Your task to perform on an android device: set the stopwatch Image 0: 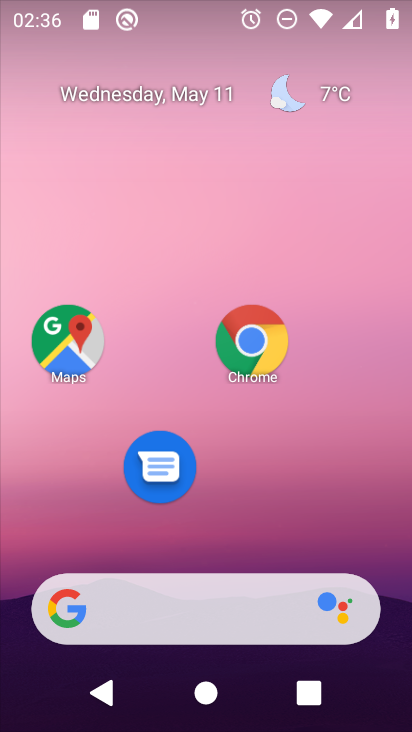
Step 0: drag from (186, 613) to (339, 94)
Your task to perform on an android device: set the stopwatch Image 1: 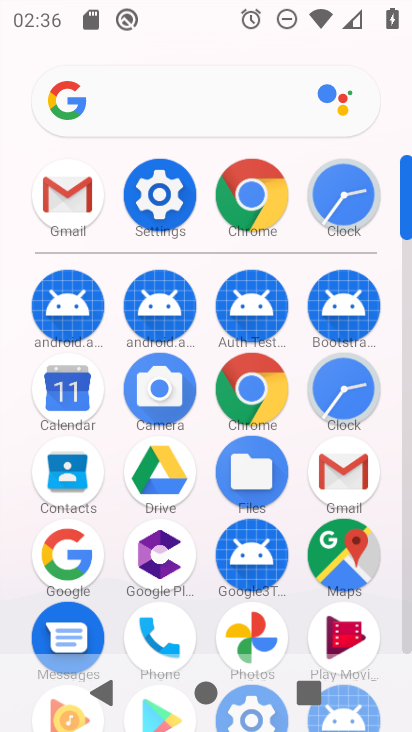
Step 1: click (347, 206)
Your task to perform on an android device: set the stopwatch Image 2: 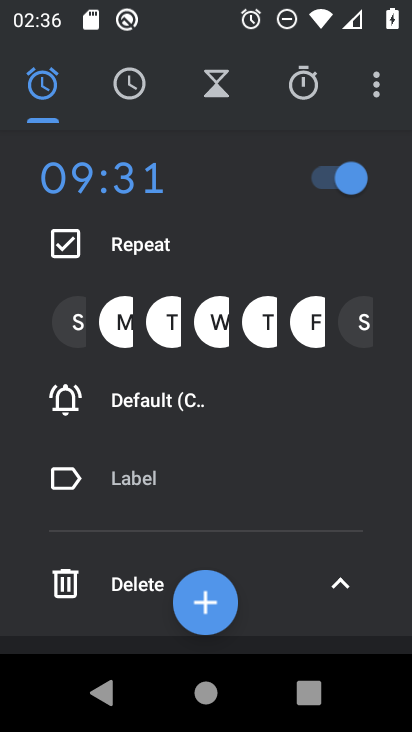
Step 2: click (300, 94)
Your task to perform on an android device: set the stopwatch Image 3: 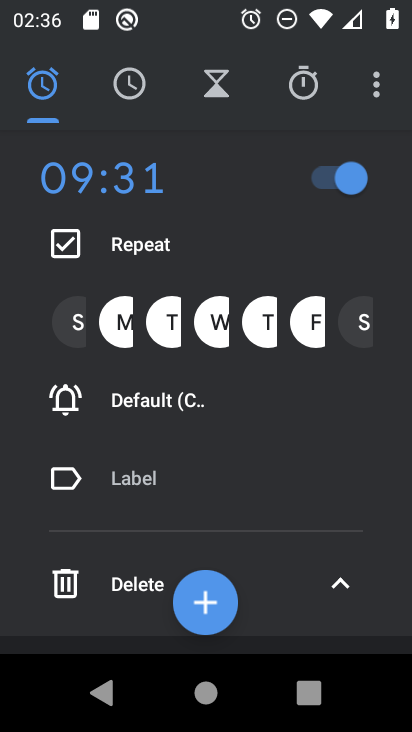
Step 3: click (303, 92)
Your task to perform on an android device: set the stopwatch Image 4: 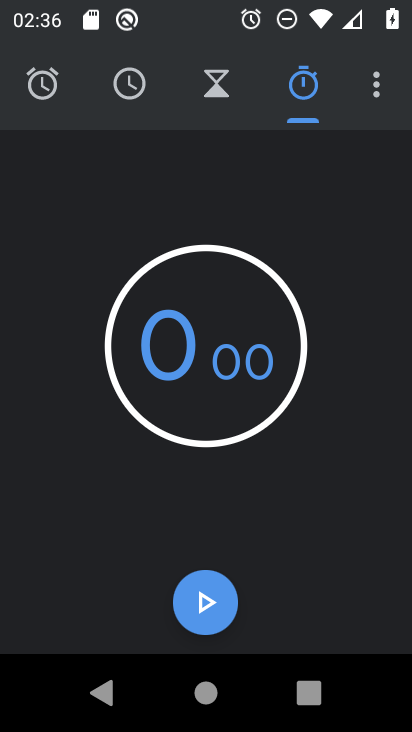
Step 4: click (211, 350)
Your task to perform on an android device: set the stopwatch Image 5: 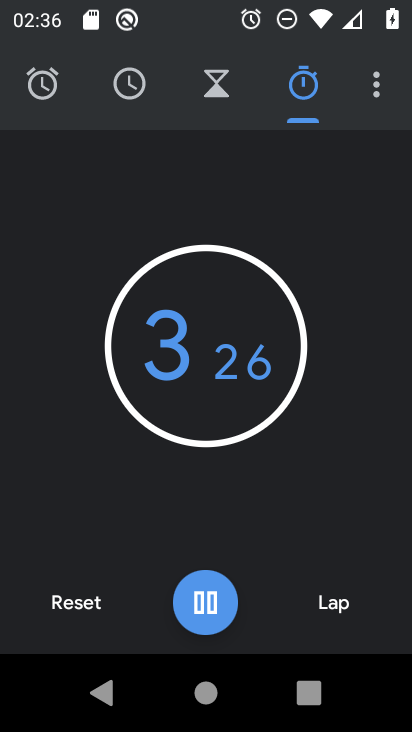
Step 5: click (211, 350)
Your task to perform on an android device: set the stopwatch Image 6: 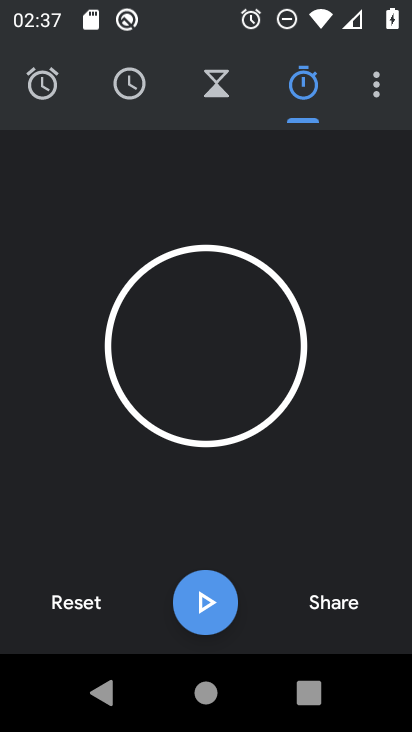
Step 6: task complete